Your task to perform on an android device: Open the calendar app, open the side menu, and click the "Day" option Image 0: 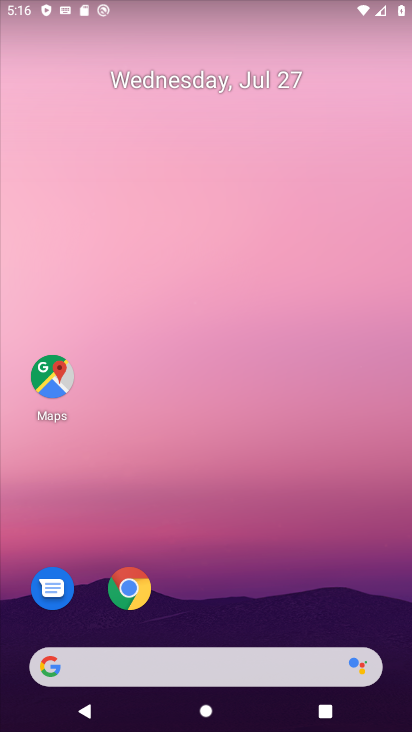
Step 0: drag from (360, 682) to (371, 21)
Your task to perform on an android device: Open the calendar app, open the side menu, and click the "Day" option Image 1: 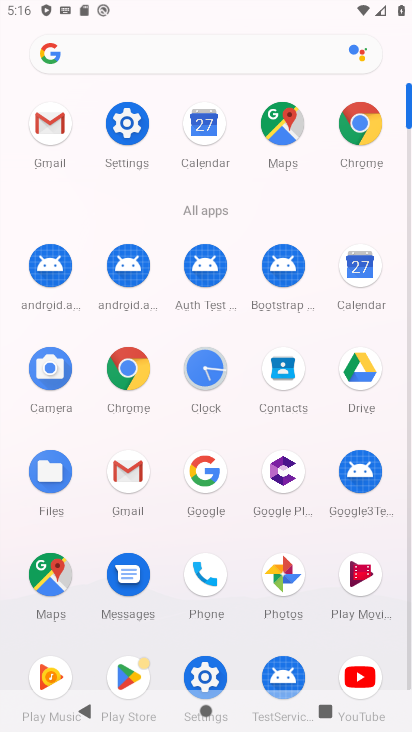
Step 1: click (365, 260)
Your task to perform on an android device: Open the calendar app, open the side menu, and click the "Day" option Image 2: 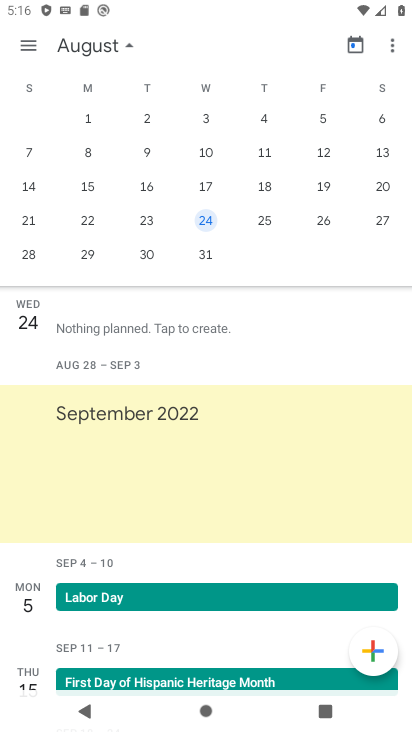
Step 2: click (23, 41)
Your task to perform on an android device: Open the calendar app, open the side menu, and click the "Day" option Image 3: 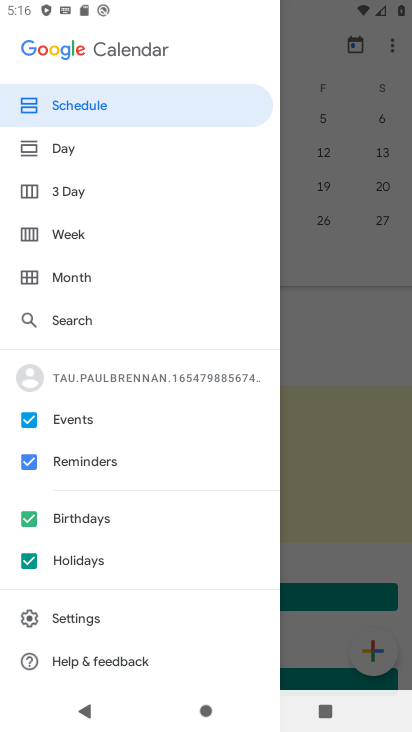
Step 3: click (73, 156)
Your task to perform on an android device: Open the calendar app, open the side menu, and click the "Day" option Image 4: 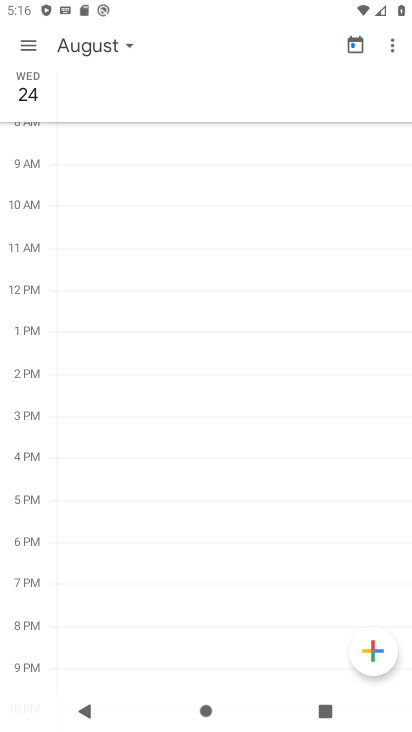
Step 4: task complete